Your task to perform on an android device: Open wifi settings Image 0: 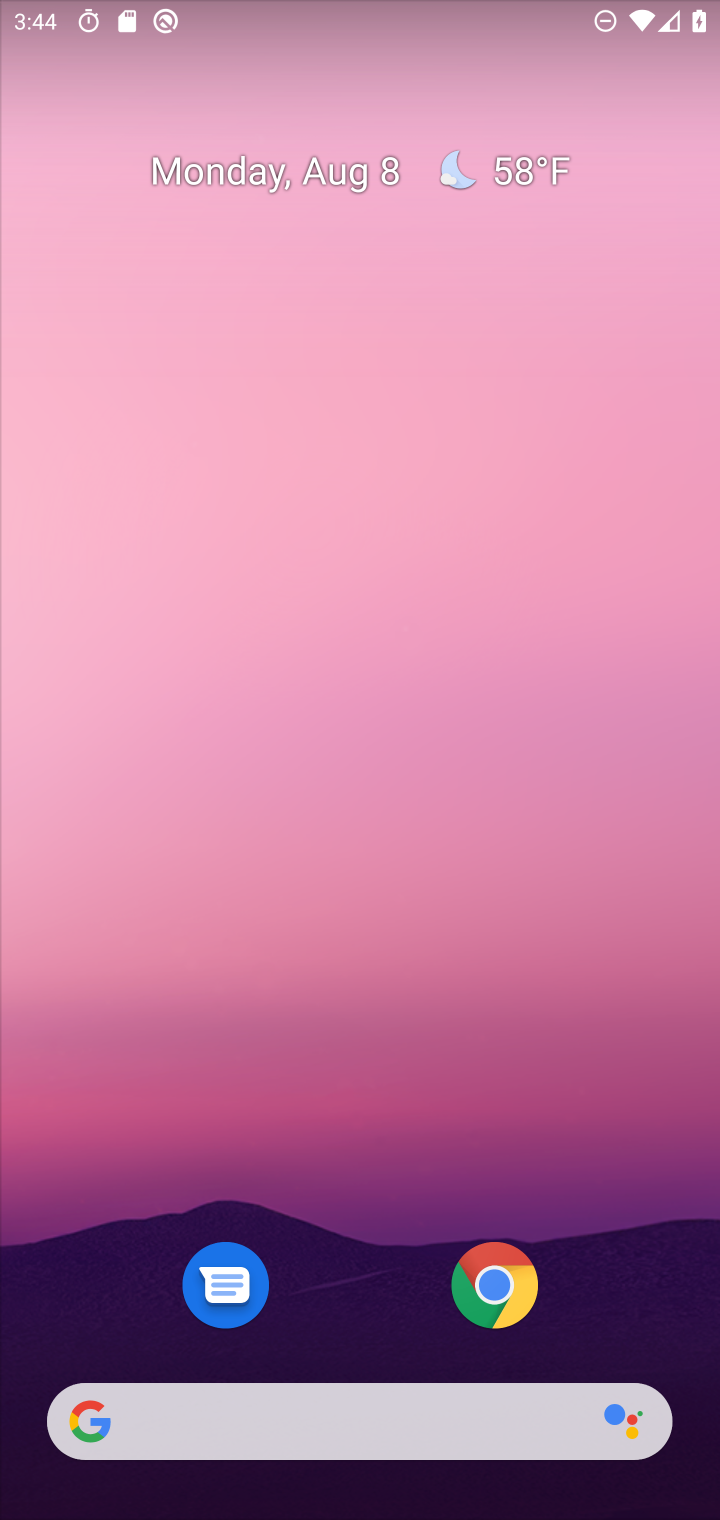
Step 0: press back button
Your task to perform on an android device: Open wifi settings Image 1: 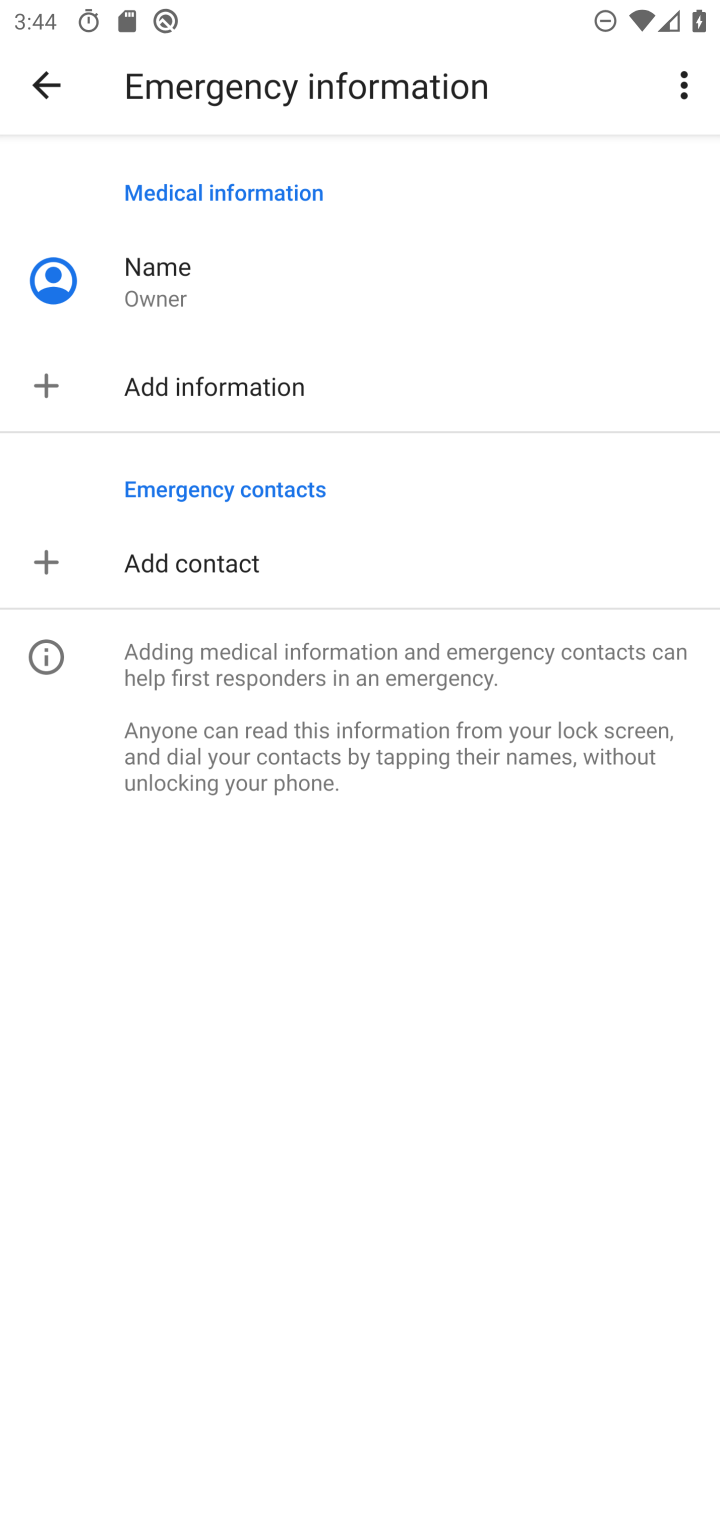
Step 1: press back button
Your task to perform on an android device: Open wifi settings Image 2: 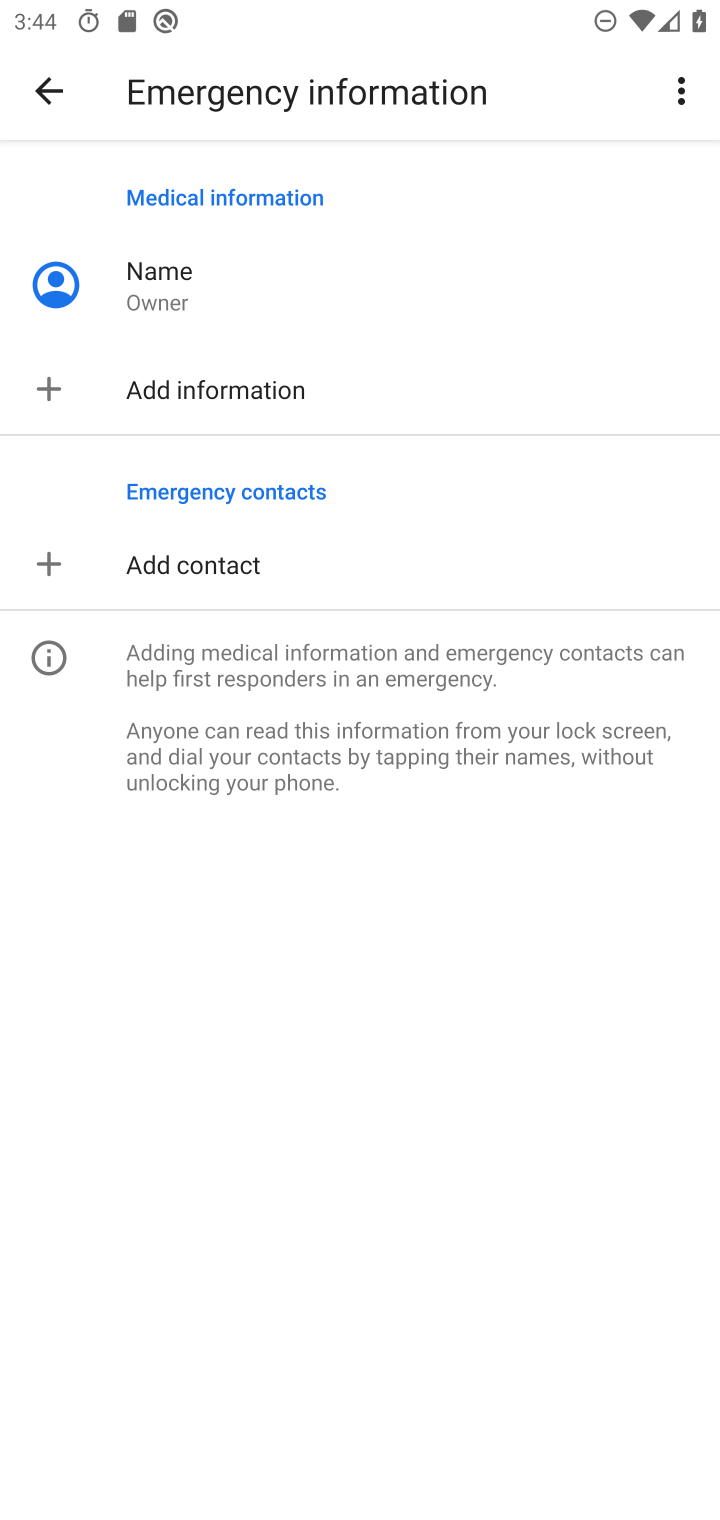
Step 2: press back button
Your task to perform on an android device: Open wifi settings Image 3: 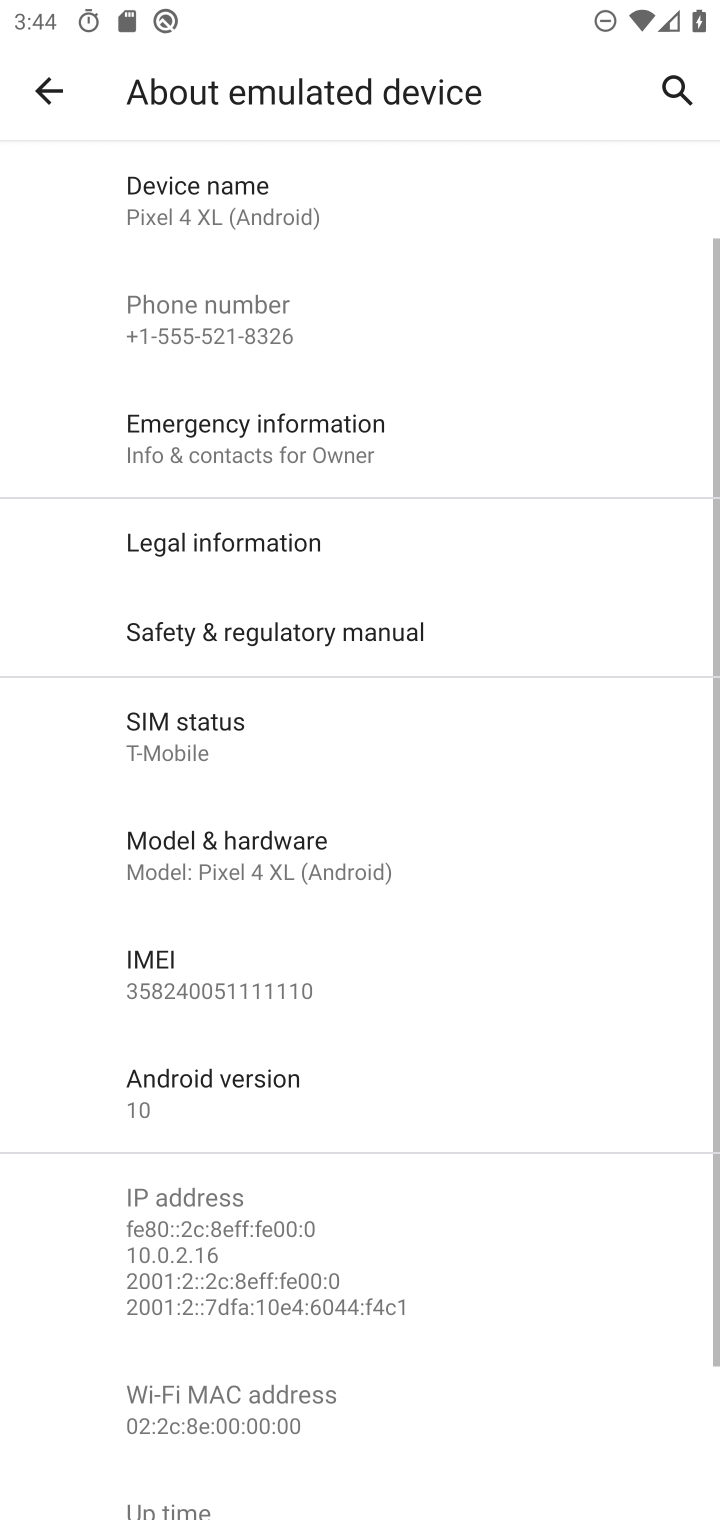
Step 3: press back button
Your task to perform on an android device: Open wifi settings Image 4: 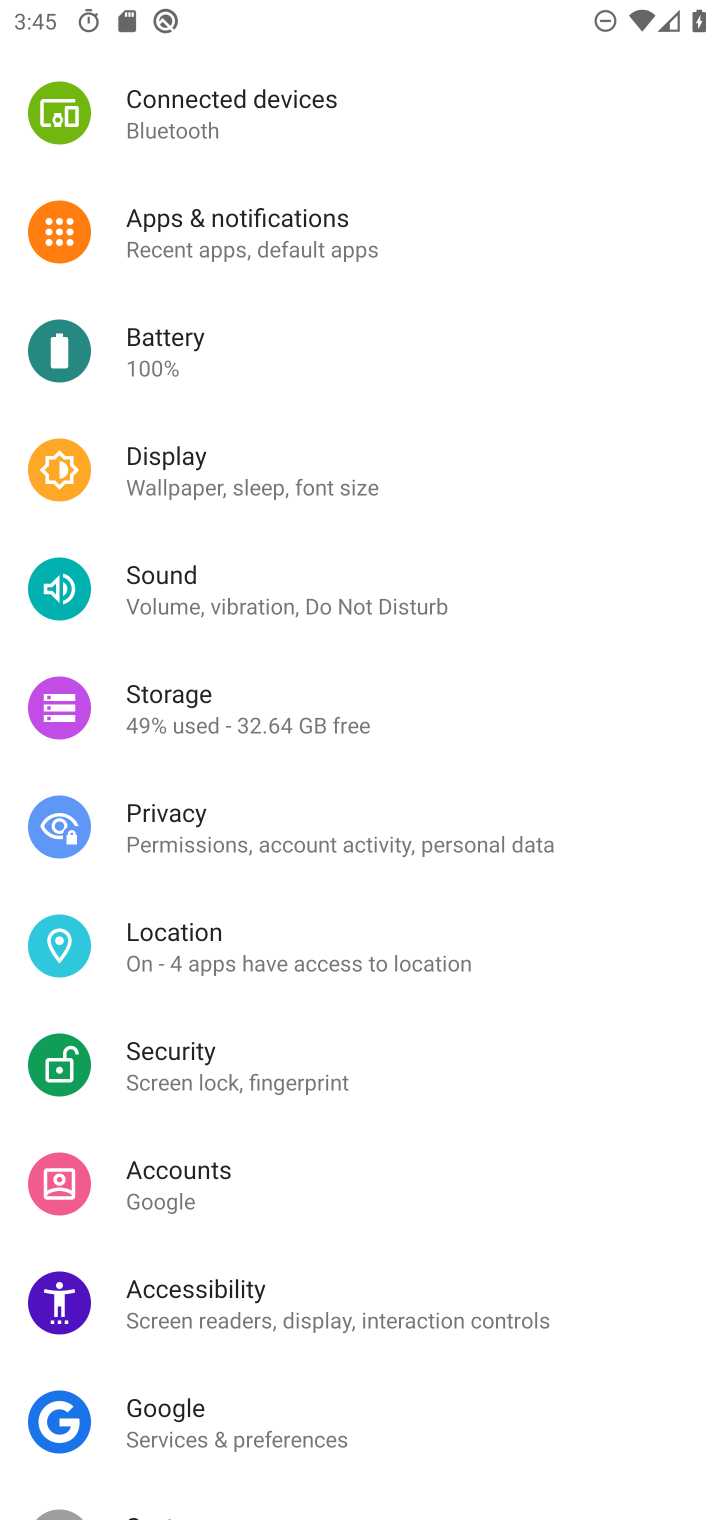
Step 4: press back button
Your task to perform on an android device: Open wifi settings Image 5: 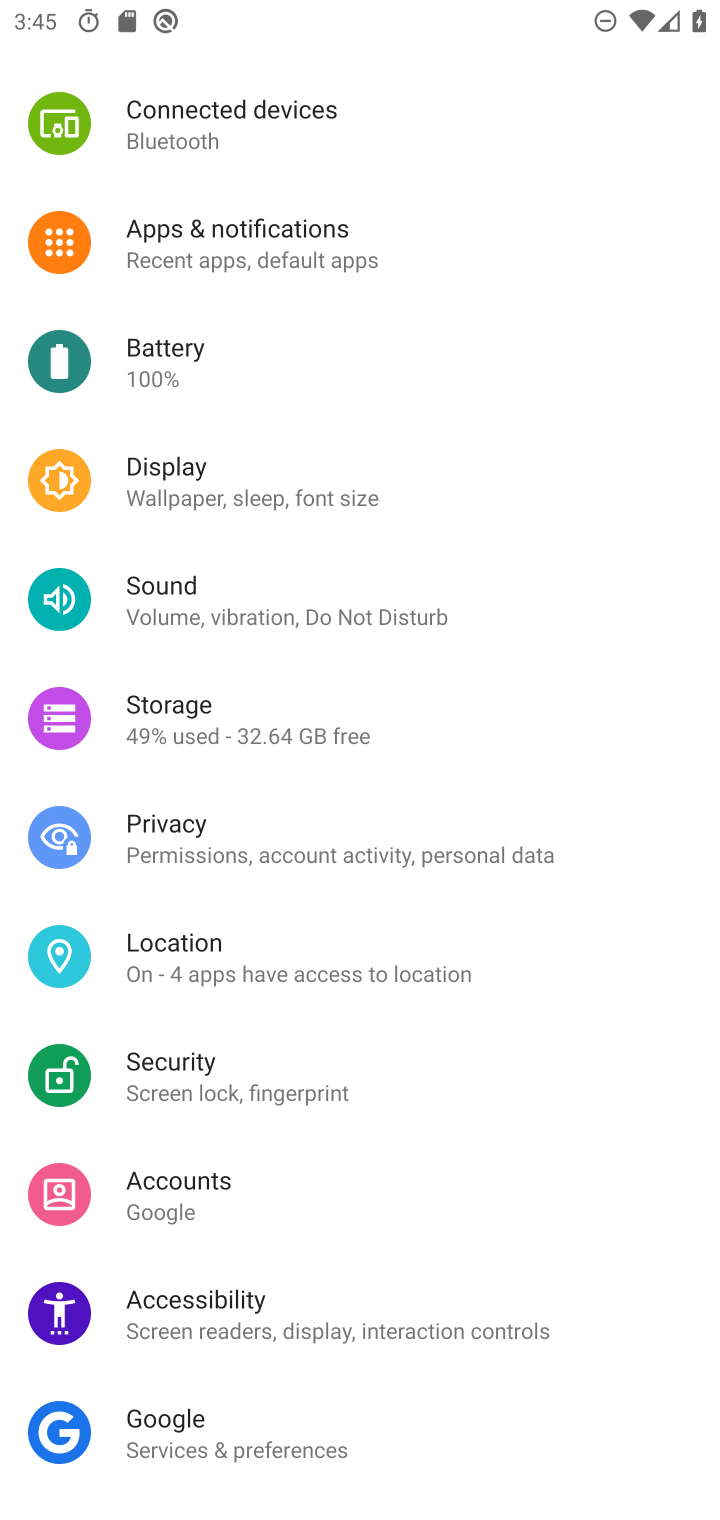
Step 5: click (270, 1201)
Your task to perform on an android device: Open wifi settings Image 6: 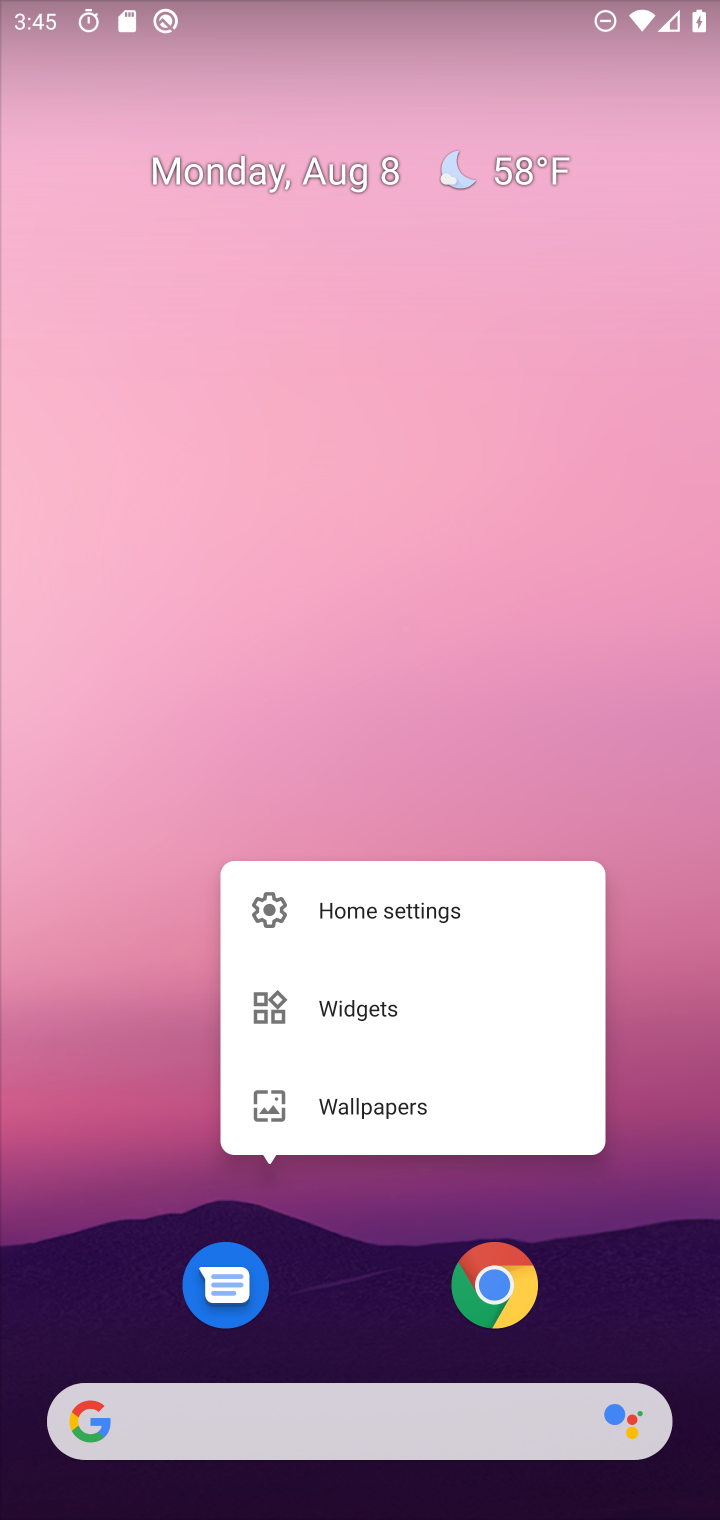
Step 6: press back button
Your task to perform on an android device: Open wifi settings Image 7: 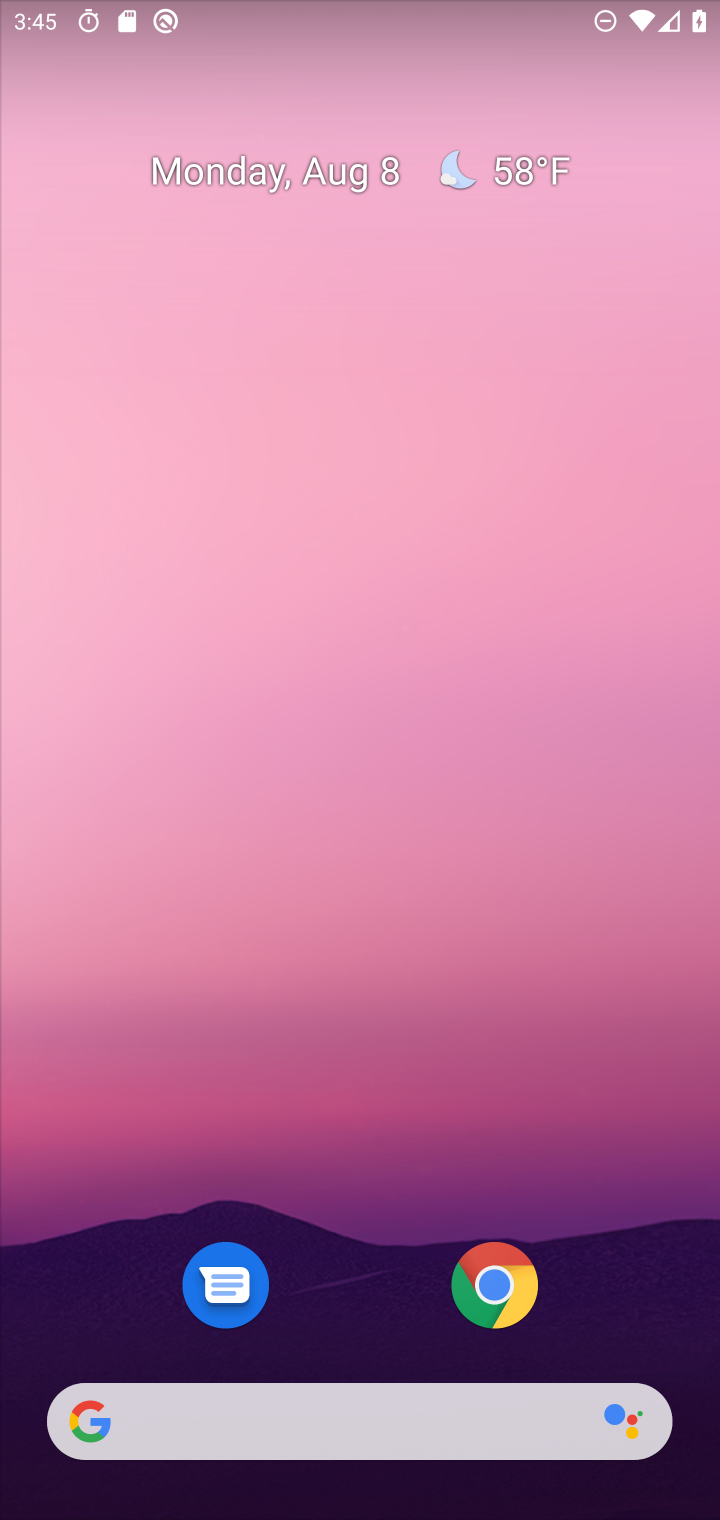
Step 7: drag from (147, 9) to (402, 1121)
Your task to perform on an android device: Open wifi settings Image 8: 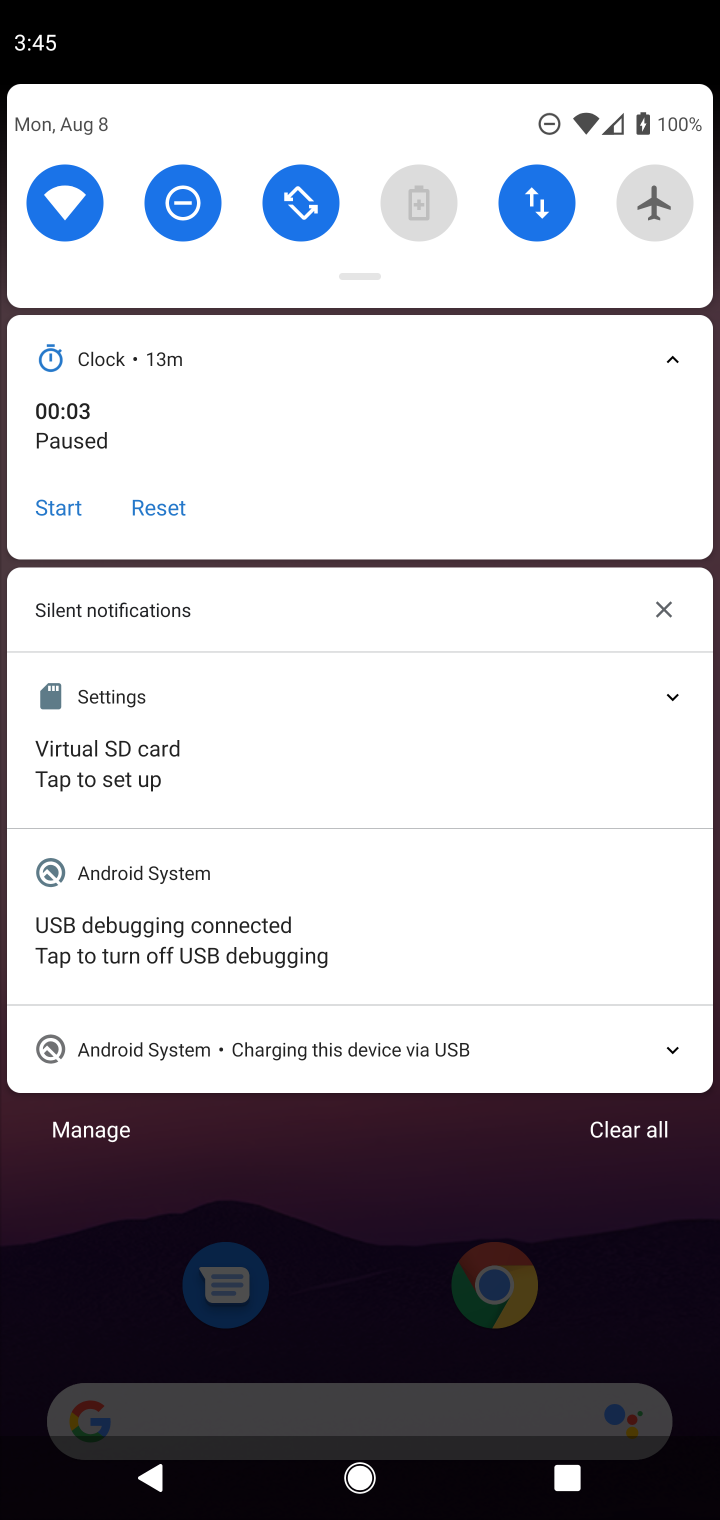
Step 8: click (79, 194)
Your task to perform on an android device: Open wifi settings Image 9: 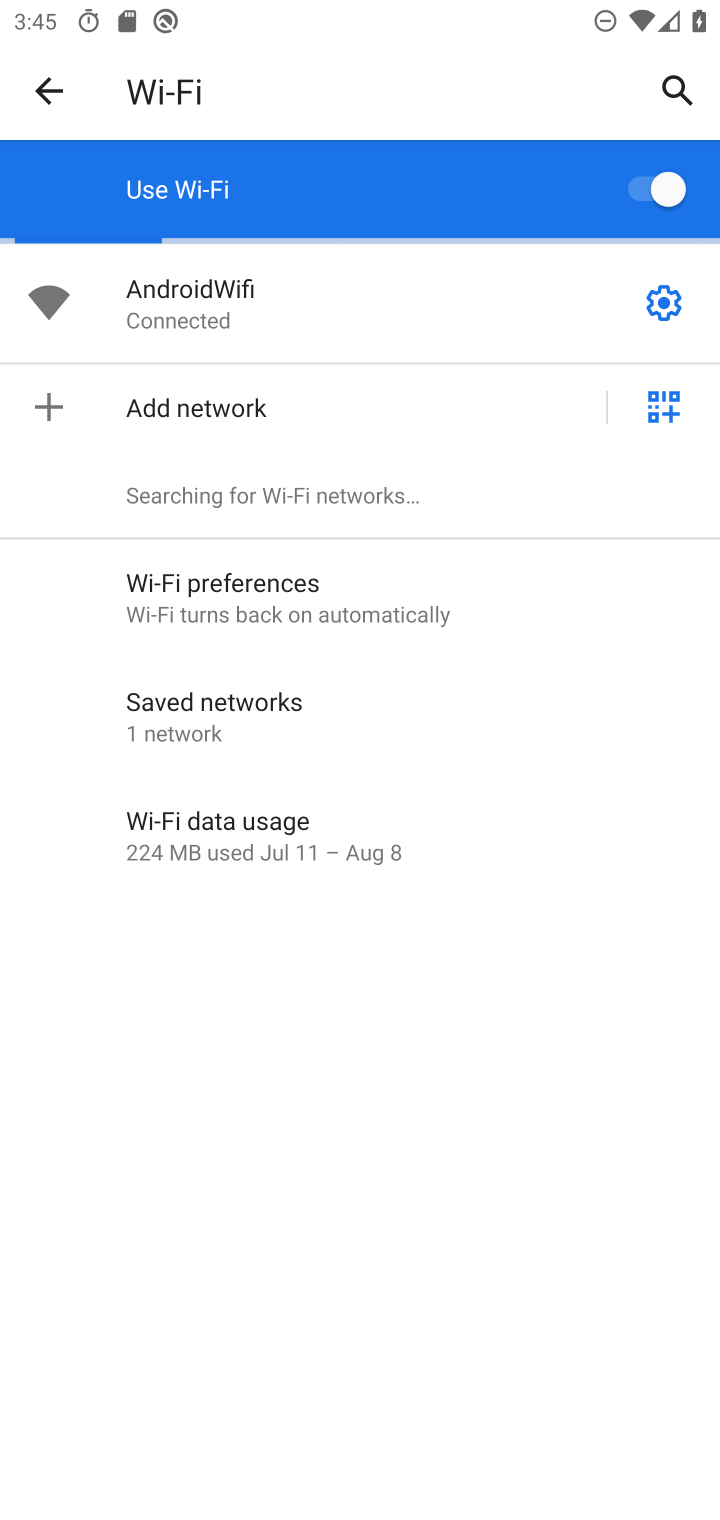
Step 9: task complete